Your task to perform on an android device: Go to Google maps Image 0: 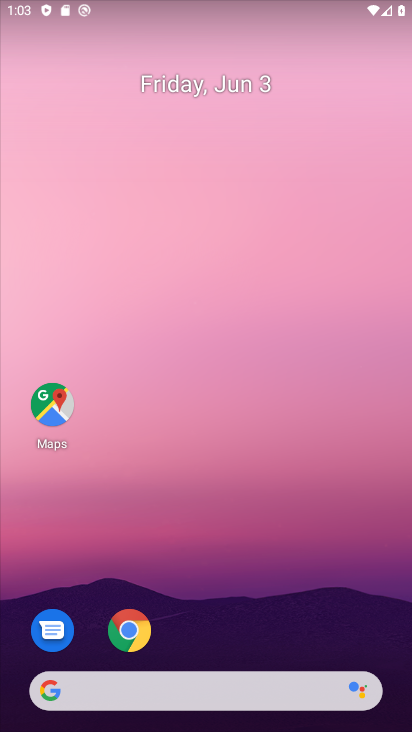
Step 0: drag from (203, 726) to (208, 138)
Your task to perform on an android device: Go to Google maps Image 1: 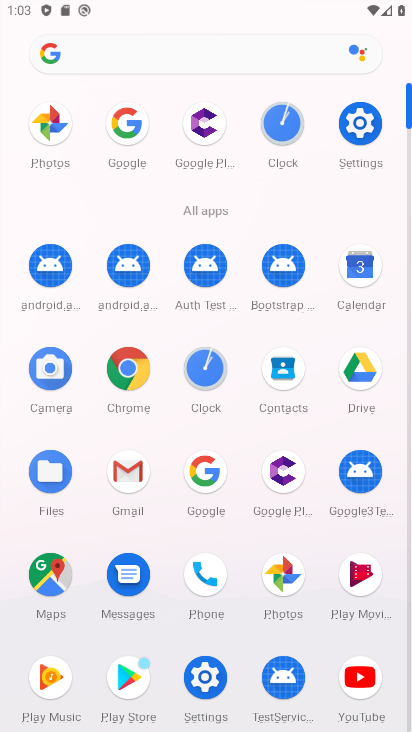
Step 1: click (39, 570)
Your task to perform on an android device: Go to Google maps Image 2: 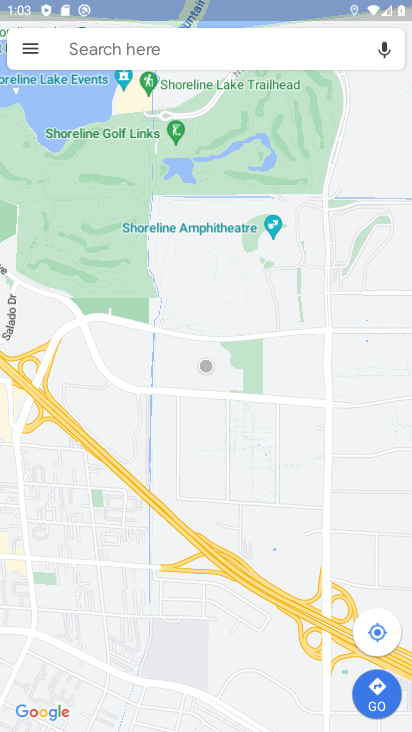
Step 2: task complete